Your task to perform on an android device: change notifications settings Image 0: 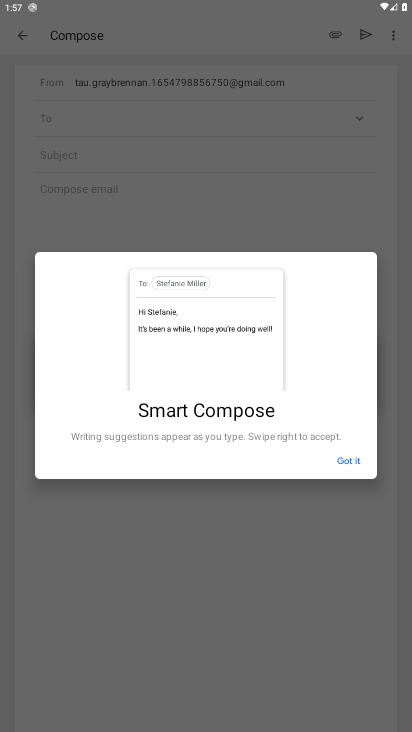
Step 0: press home button
Your task to perform on an android device: change notifications settings Image 1: 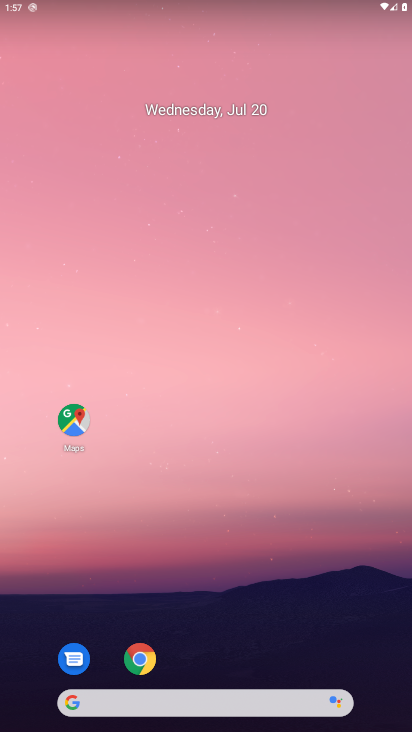
Step 1: drag from (52, 667) to (197, 69)
Your task to perform on an android device: change notifications settings Image 2: 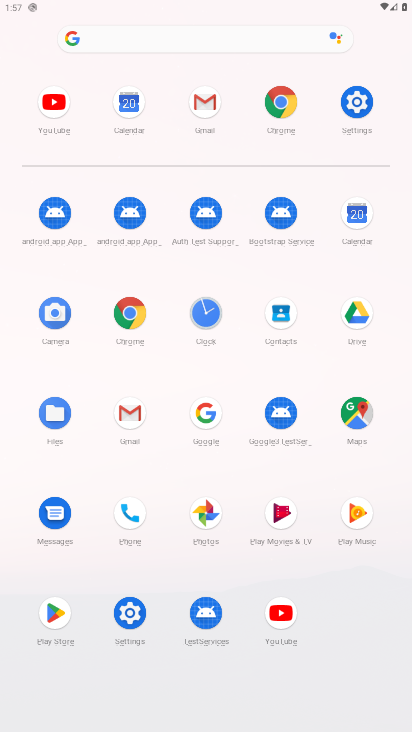
Step 2: click (118, 607)
Your task to perform on an android device: change notifications settings Image 3: 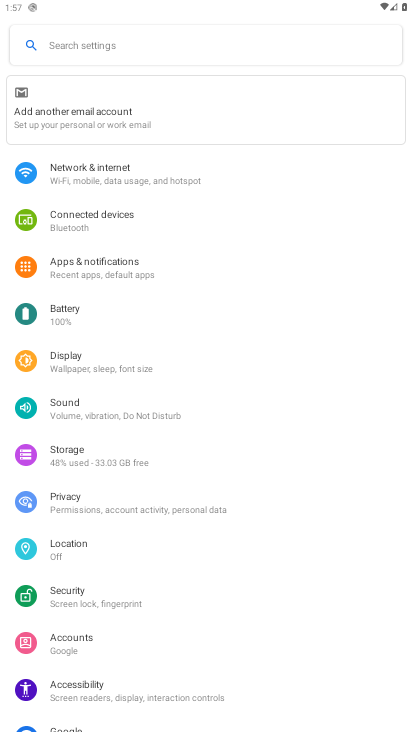
Step 3: click (80, 271)
Your task to perform on an android device: change notifications settings Image 4: 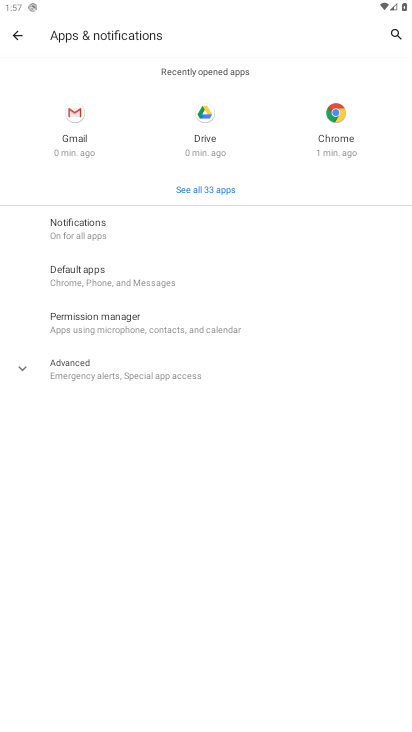
Step 4: click (55, 226)
Your task to perform on an android device: change notifications settings Image 5: 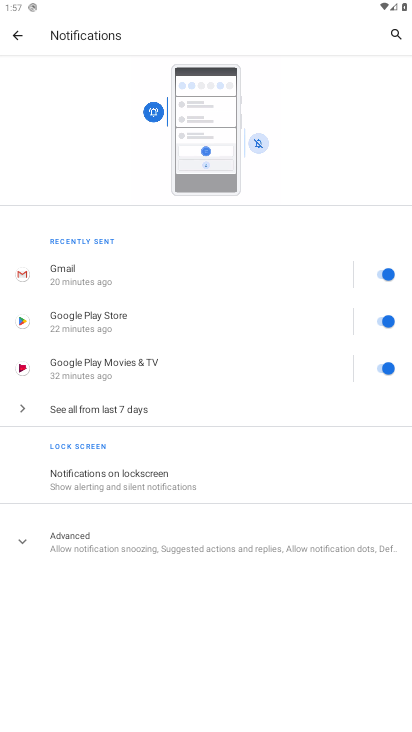
Step 5: task complete